Your task to perform on an android device: Is it going to rain tomorrow? Image 0: 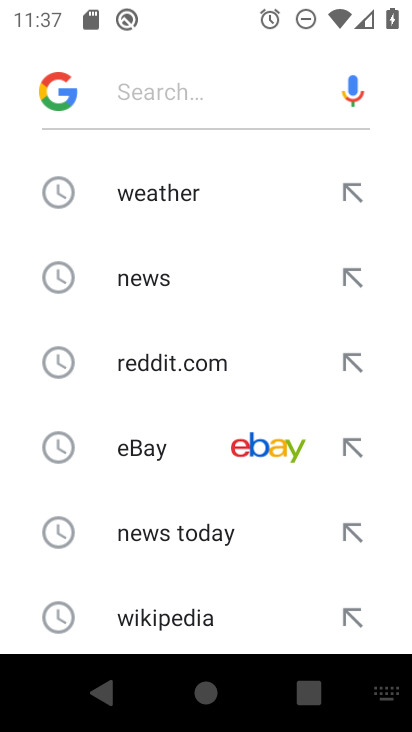
Step 0: click (235, 191)
Your task to perform on an android device: Is it going to rain tomorrow? Image 1: 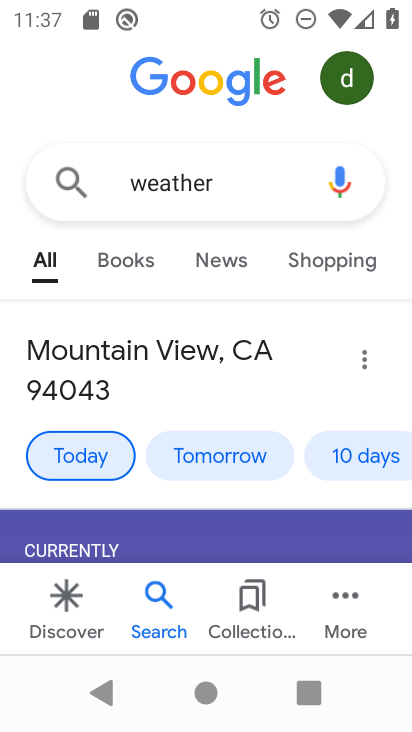
Step 1: click (235, 455)
Your task to perform on an android device: Is it going to rain tomorrow? Image 2: 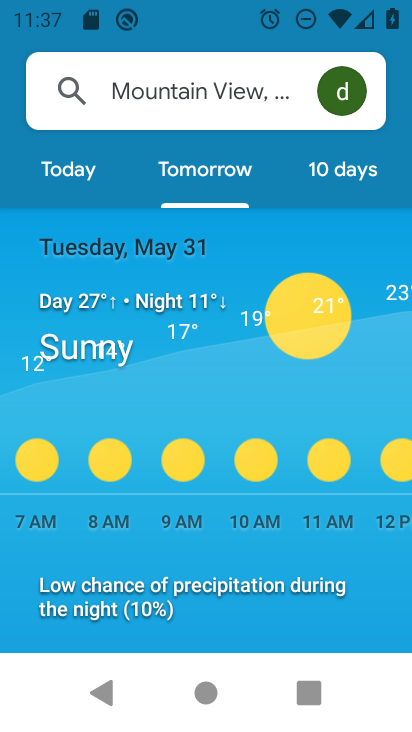
Step 2: task complete